Your task to perform on an android device: change the upload size in google photos Image 0: 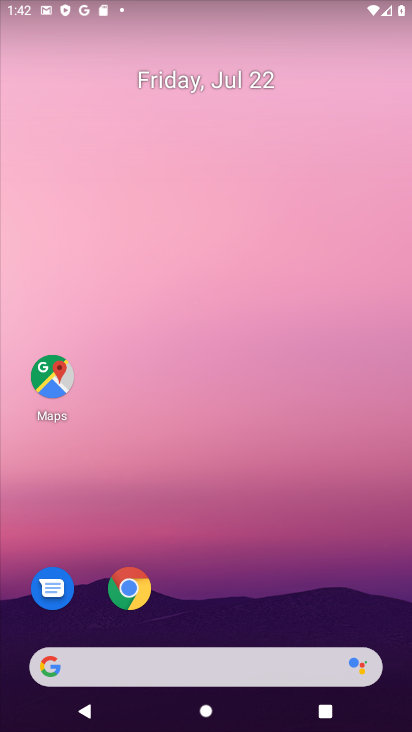
Step 0: drag from (196, 559) to (153, 31)
Your task to perform on an android device: change the upload size in google photos Image 1: 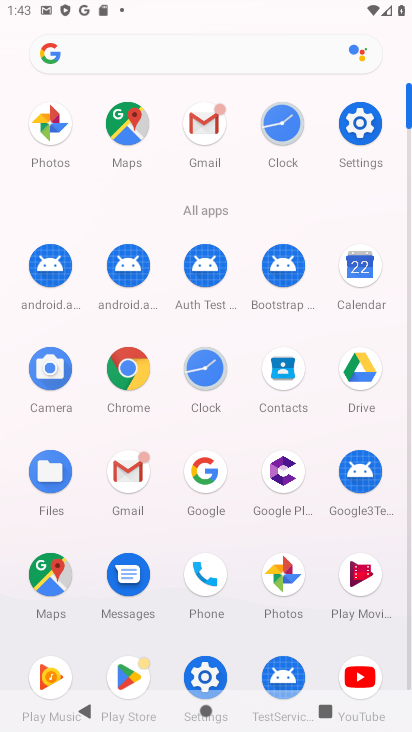
Step 1: click (279, 567)
Your task to perform on an android device: change the upload size in google photos Image 2: 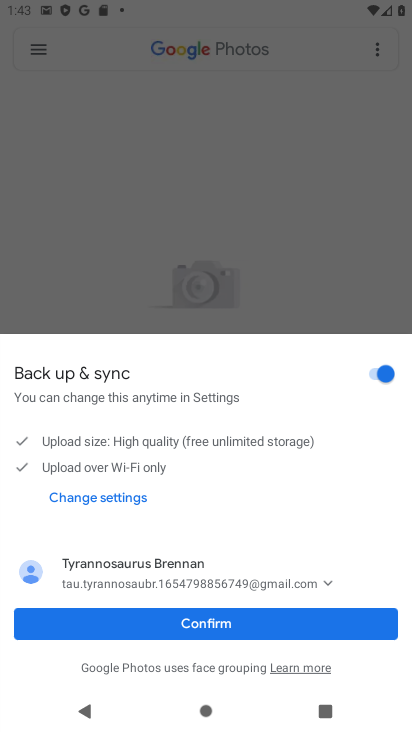
Step 2: click (207, 627)
Your task to perform on an android device: change the upload size in google photos Image 3: 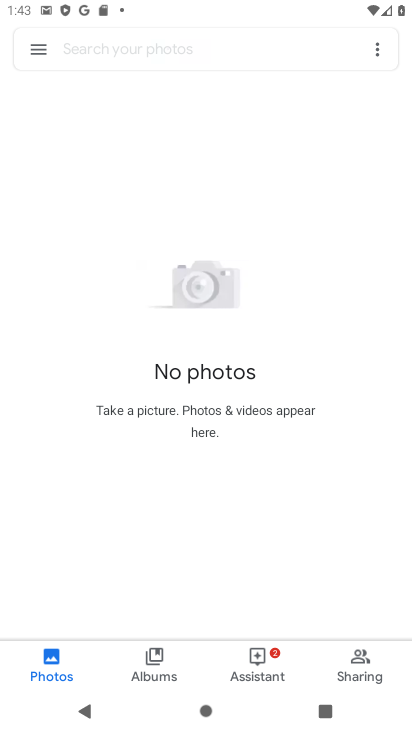
Step 3: click (30, 50)
Your task to perform on an android device: change the upload size in google photos Image 4: 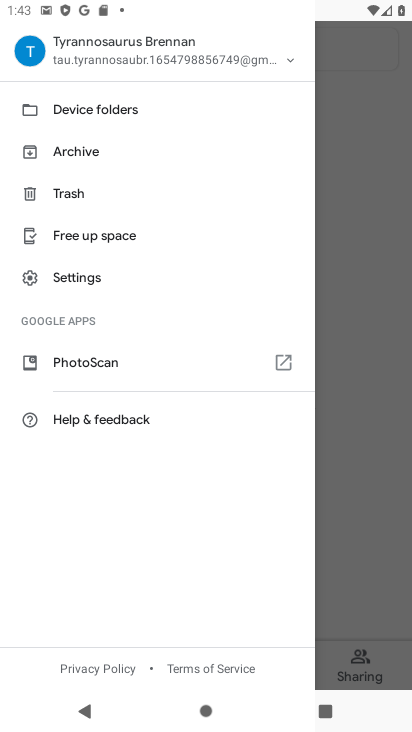
Step 4: click (67, 275)
Your task to perform on an android device: change the upload size in google photos Image 5: 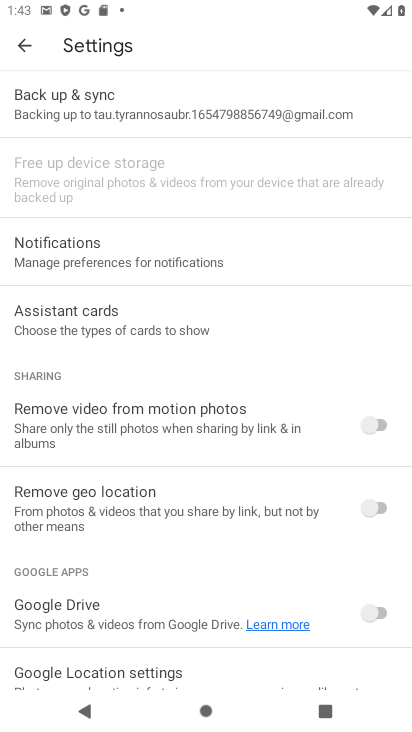
Step 5: click (41, 108)
Your task to perform on an android device: change the upload size in google photos Image 6: 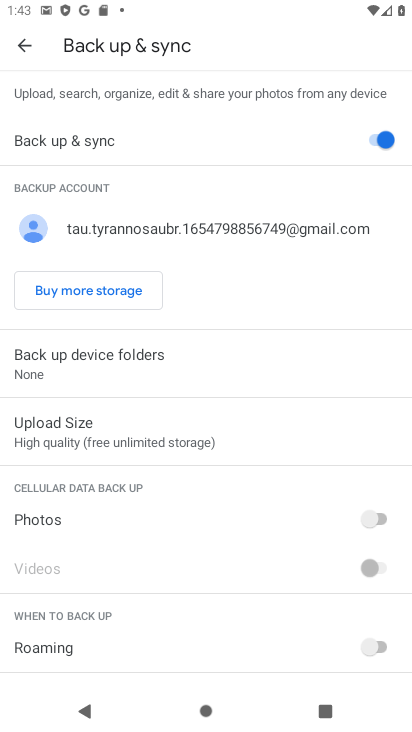
Step 6: click (88, 429)
Your task to perform on an android device: change the upload size in google photos Image 7: 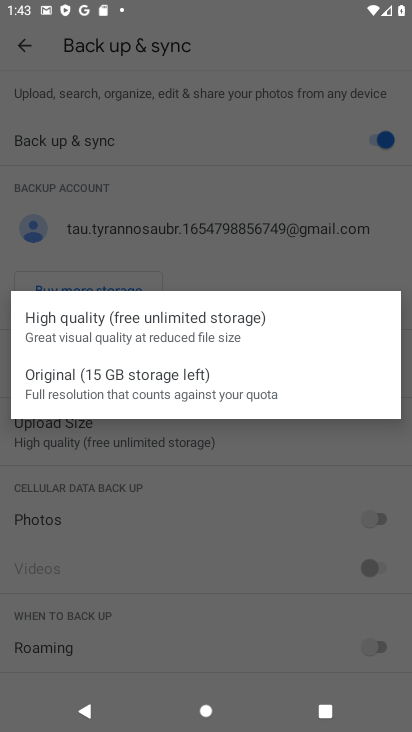
Step 7: click (150, 508)
Your task to perform on an android device: change the upload size in google photos Image 8: 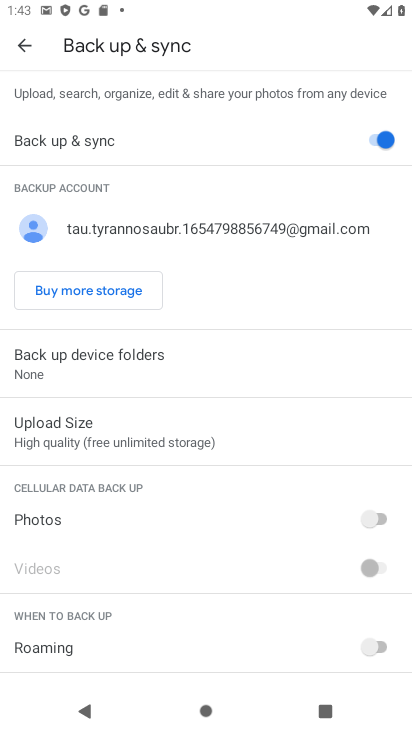
Step 8: click (65, 423)
Your task to perform on an android device: change the upload size in google photos Image 9: 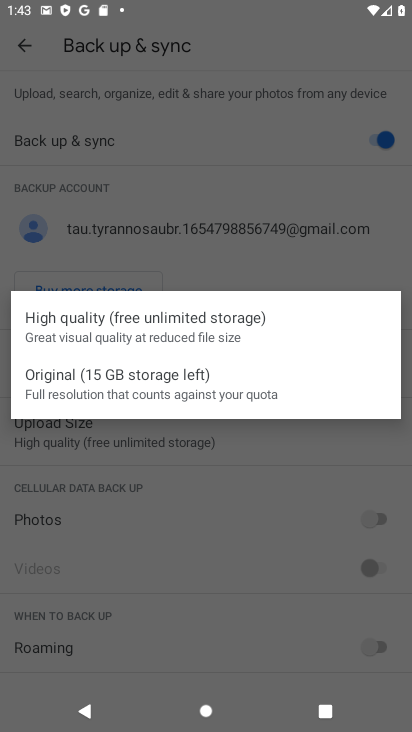
Step 9: click (103, 390)
Your task to perform on an android device: change the upload size in google photos Image 10: 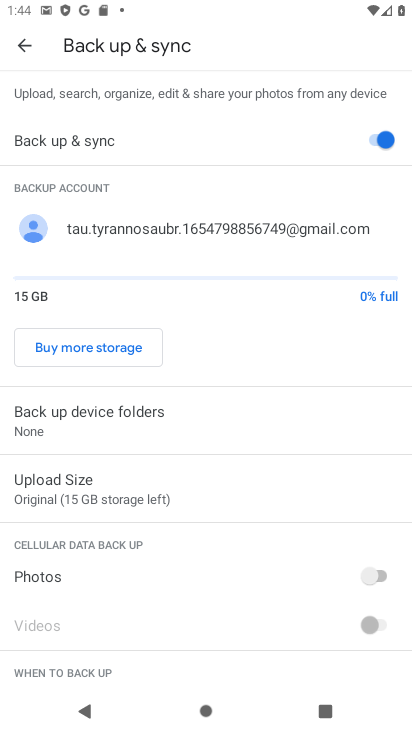
Step 10: task complete